Your task to perform on an android device: Go to CNN.com Image 0: 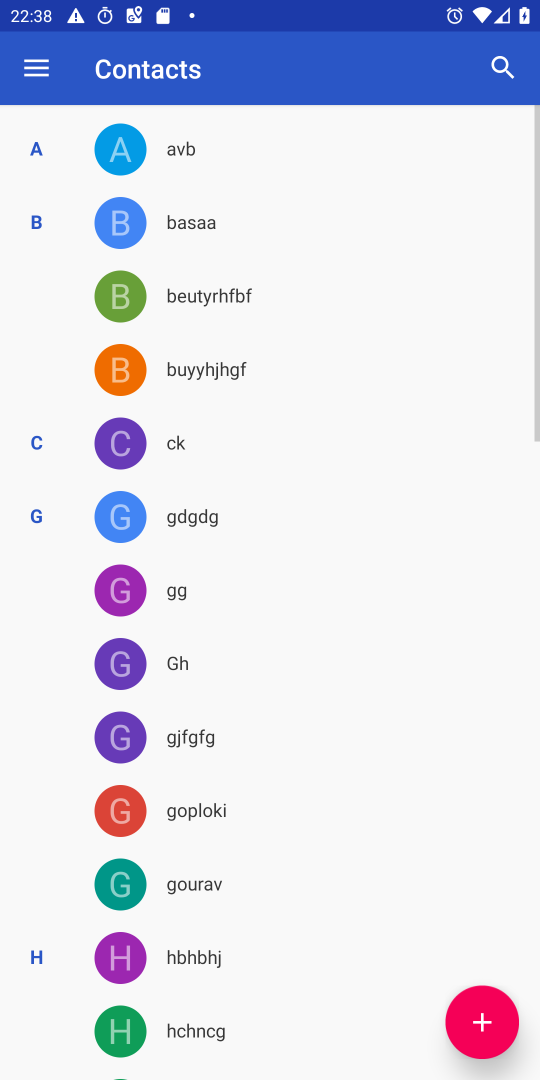
Step 0: press home button
Your task to perform on an android device: Go to CNN.com Image 1: 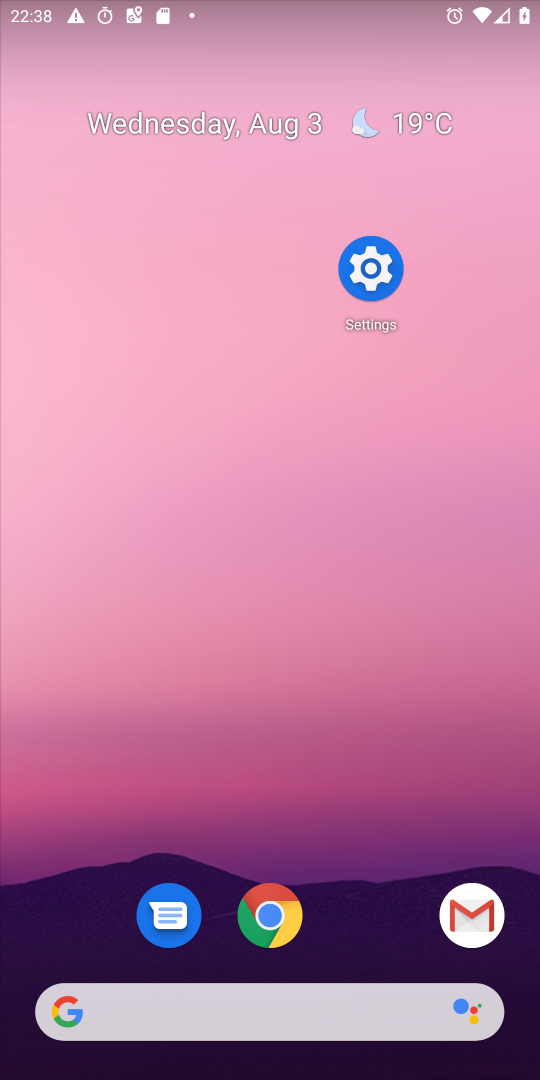
Step 1: drag from (276, 1017) to (197, 520)
Your task to perform on an android device: Go to CNN.com Image 2: 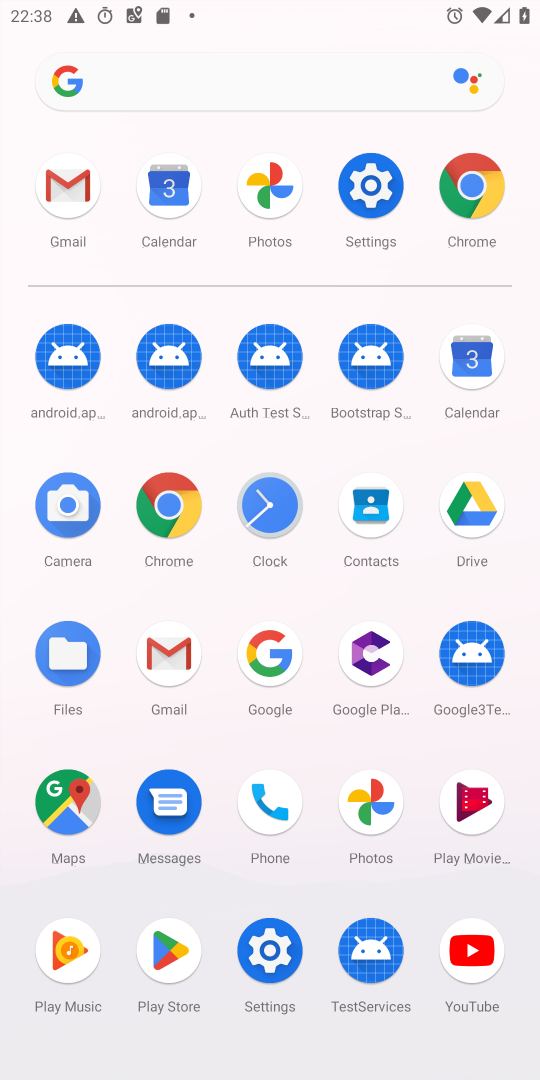
Step 2: click (444, 229)
Your task to perform on an android device: Go to CNN.com Image 3: 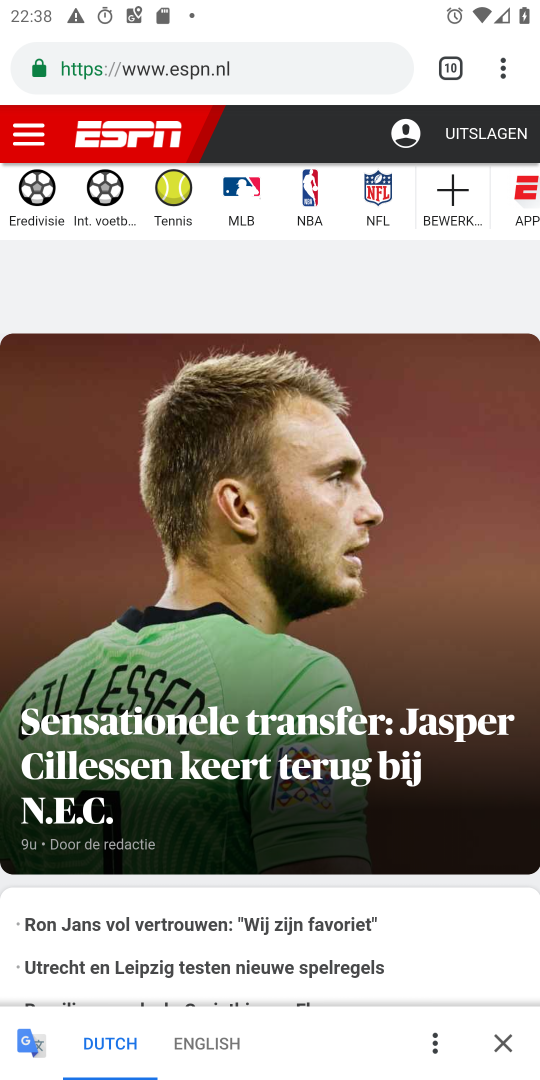
Step 3: click (249, 68)
Your task to perform on an android device: Go to CNN.com Image 4: 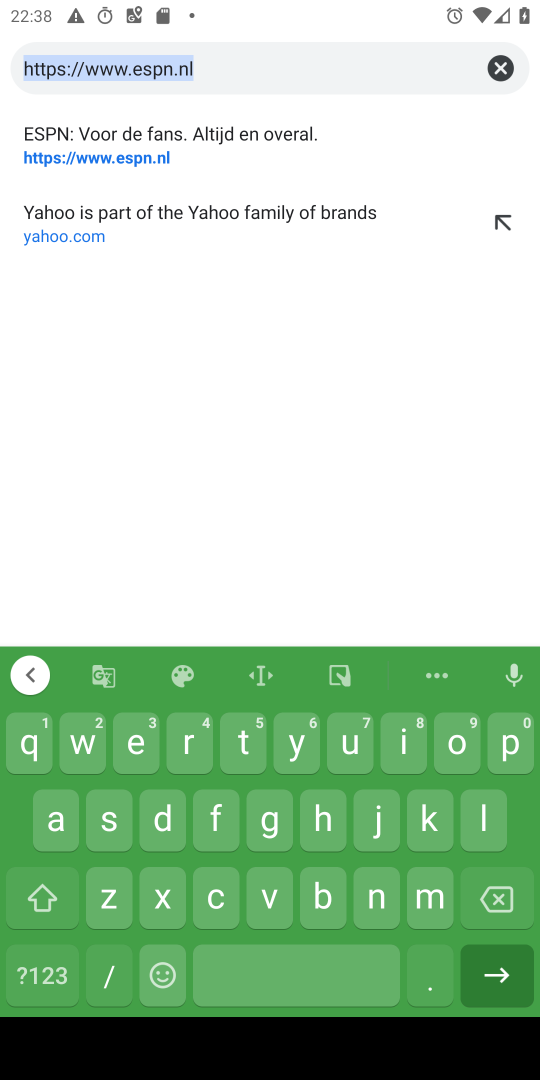
Step 4: click (204, 909)
Your task to perform on an android device: Go to CNN.com Image 5: 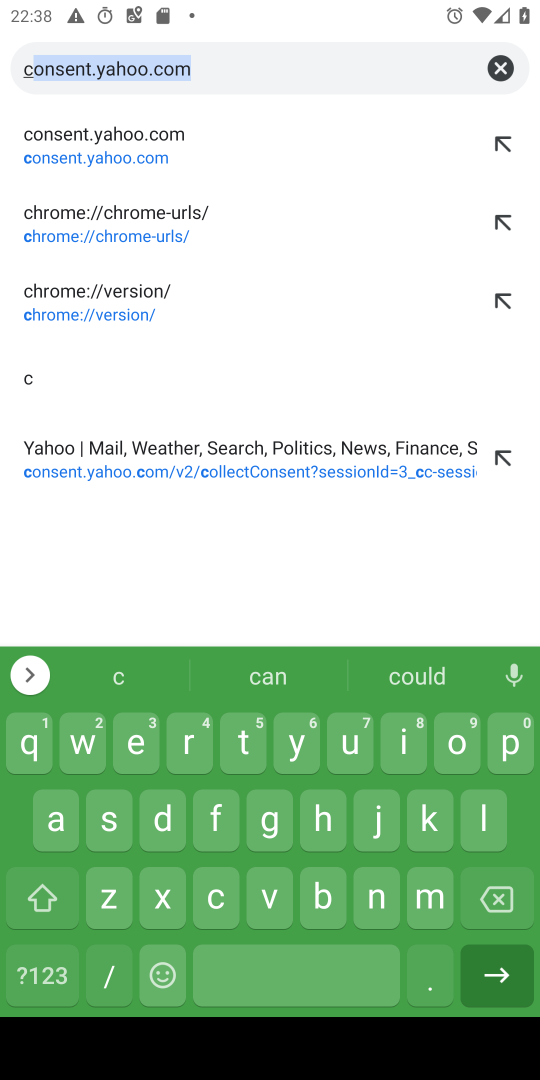
Step 5: click (369, 903)
Your task to perform on an android device: Go to CNN.com Image 6: 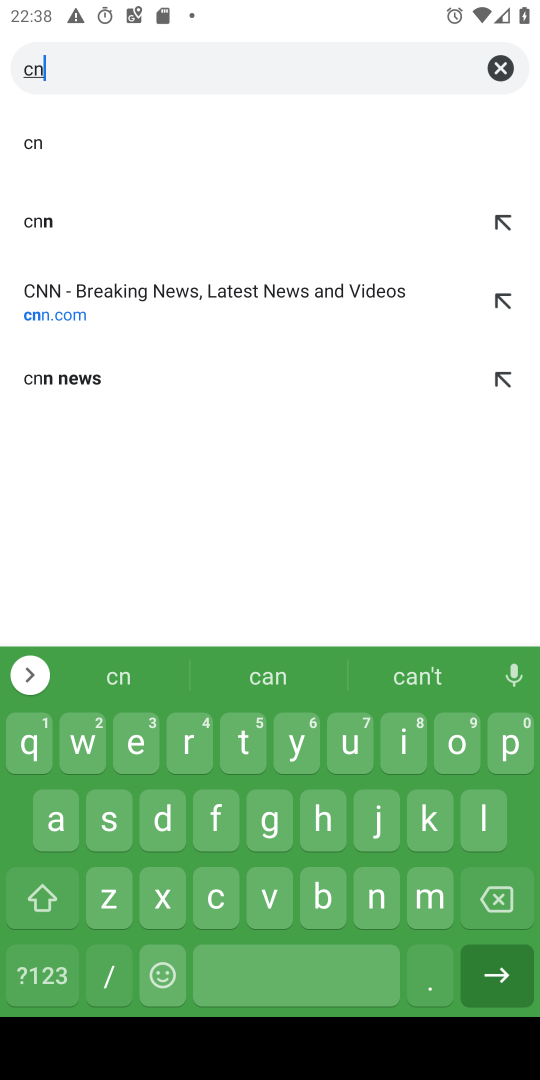
Step 6: click (148, 293)
Your task to perform on an android device: Go to CNN.com Image 7: 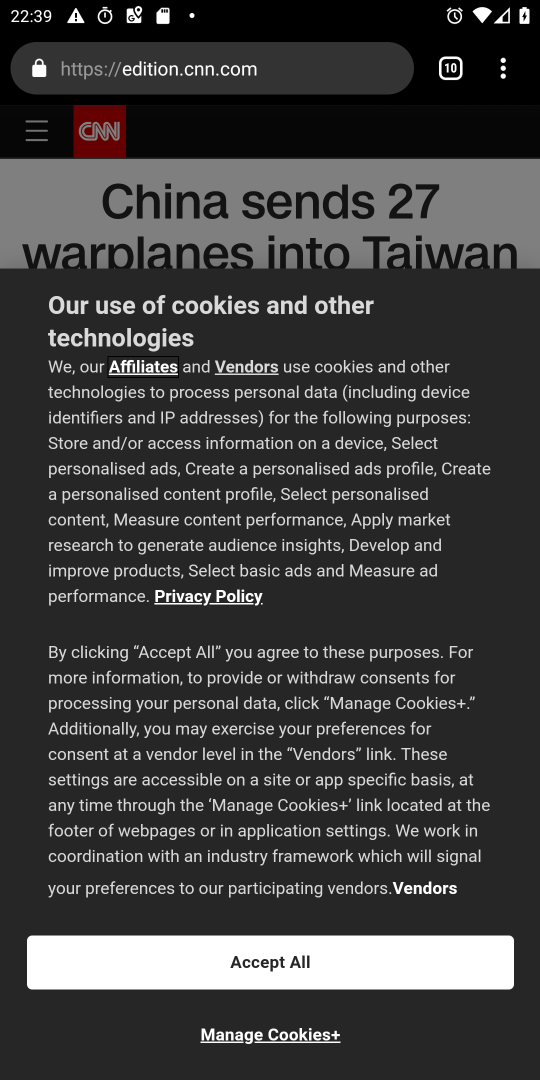
Step 7: click (226, 951)
Your task to perform on an android device: Go to CNN.com Image 8: 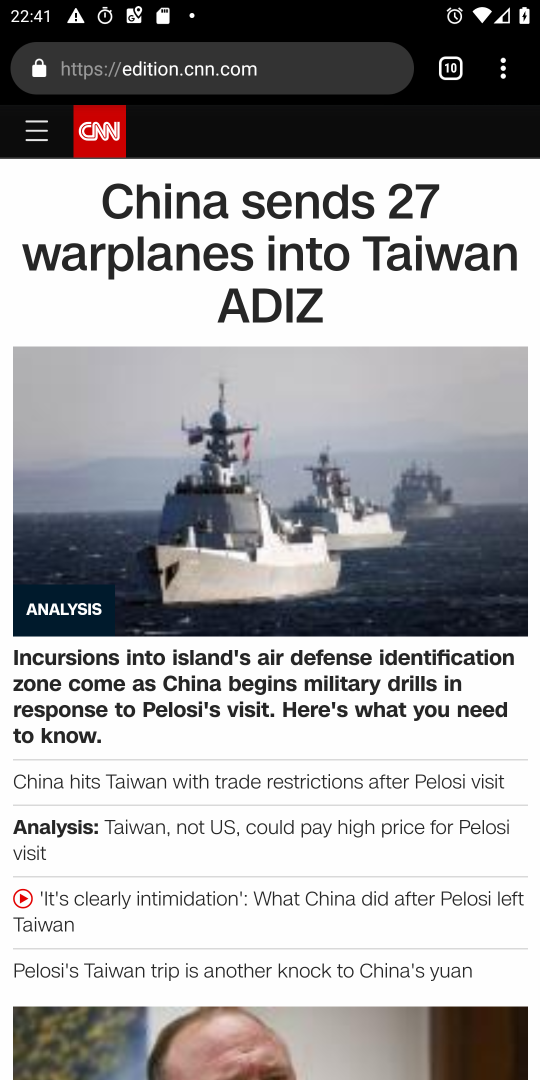
Step 8: task complete